Your task to perform on an android device: Go to notification settings Image 0: 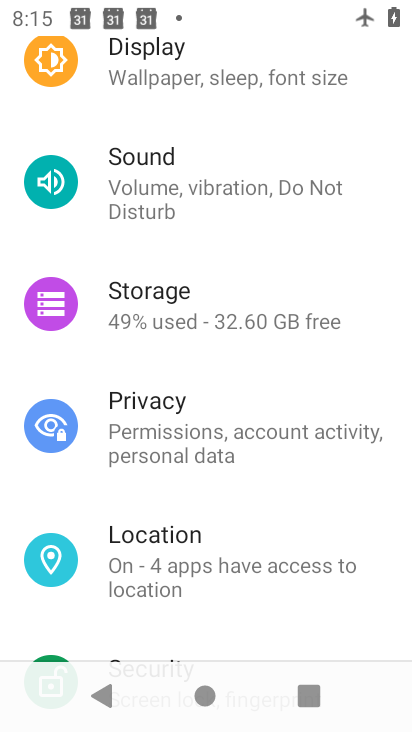
Step 0: drag from (232, 149) to (228, 484)
Your task to perform on an android device: Go to notification settings Image 1: 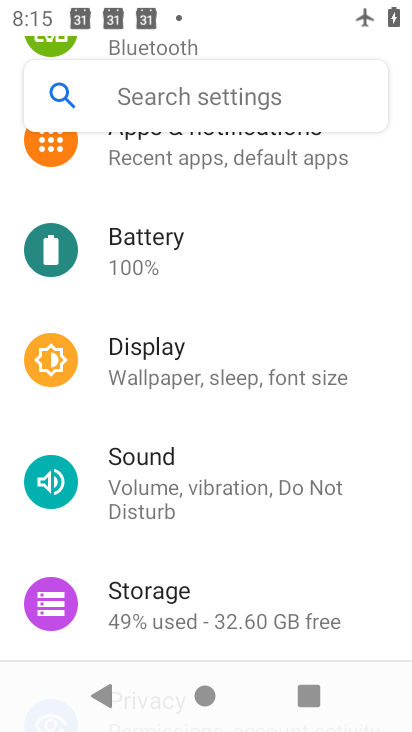
Step 1: drag from (202, 221) to (191, 521)
Your task to perform on an android device: Go to notification settings Image 2: 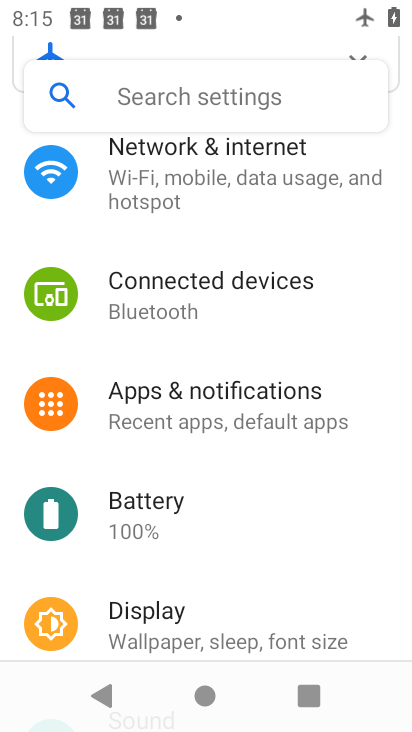
Step 2: click (206, 418)
Your task to perform on an android device: Go to notification settings Image 3: 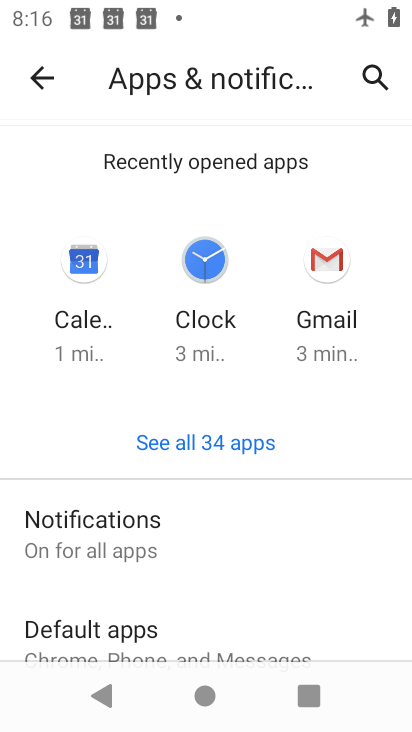
Step 3: click (70, 532)
Your task to perform on an android device: Go to notification settings Image 4: 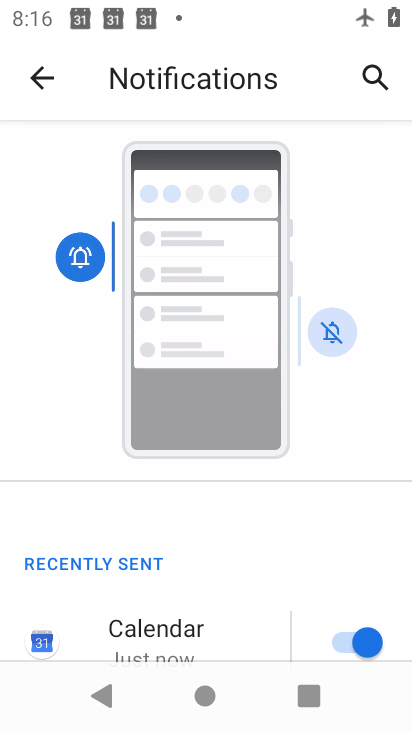
Step 4: task complete